Your task to perform on an android device: Open Android settings Image 0: 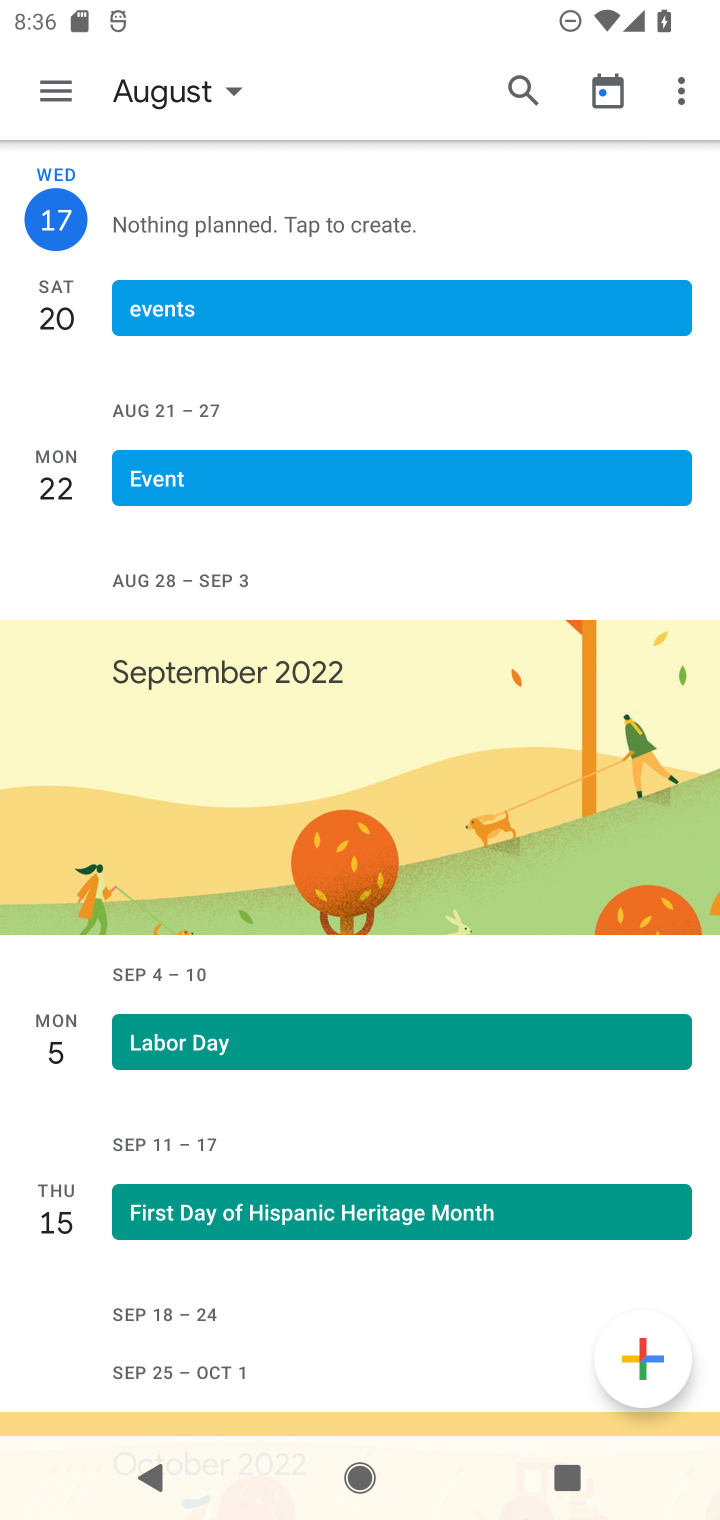
Step 0: press home button
Your task to perform on an android device: Open Android settings Image 1: 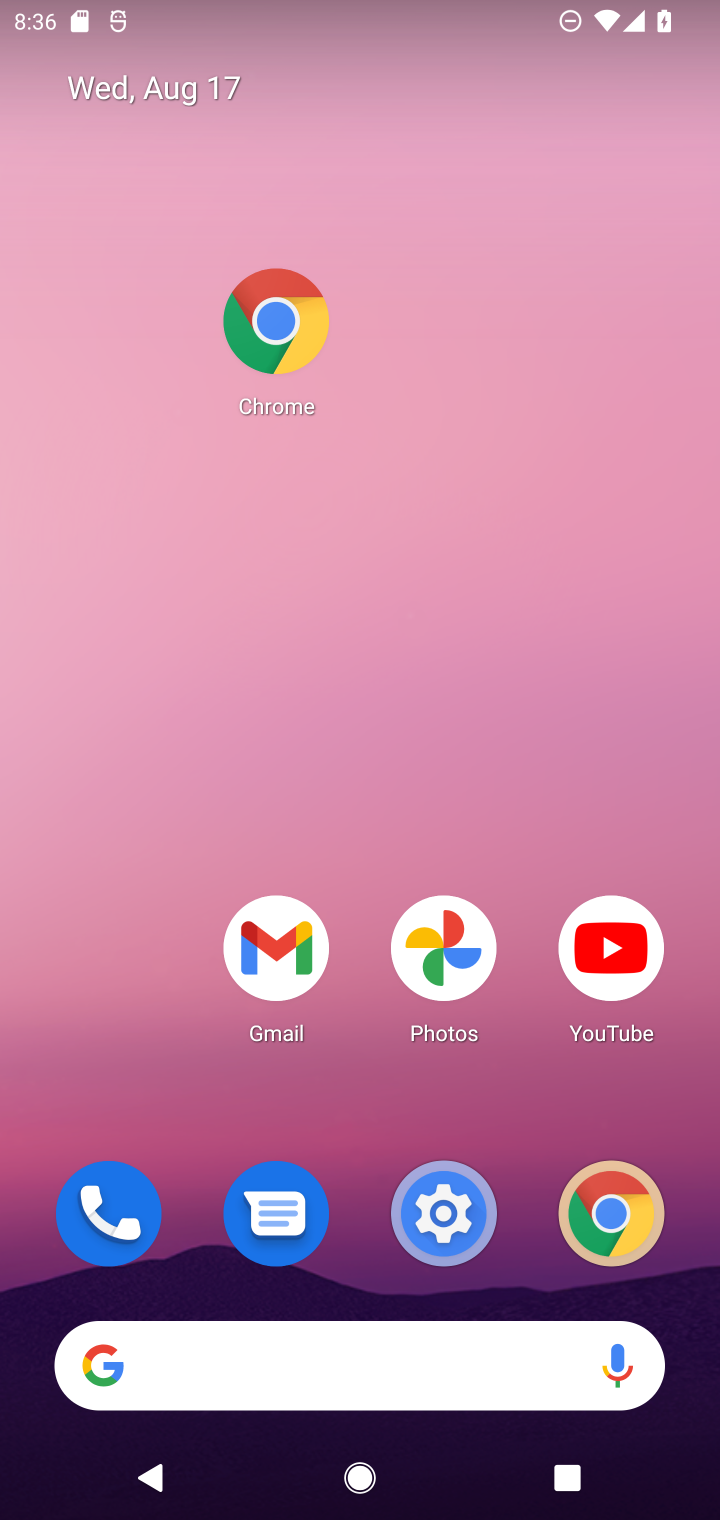
Step 1: click (441, 1256)
Your task to perform on an android device: Open Android settings Image 2: 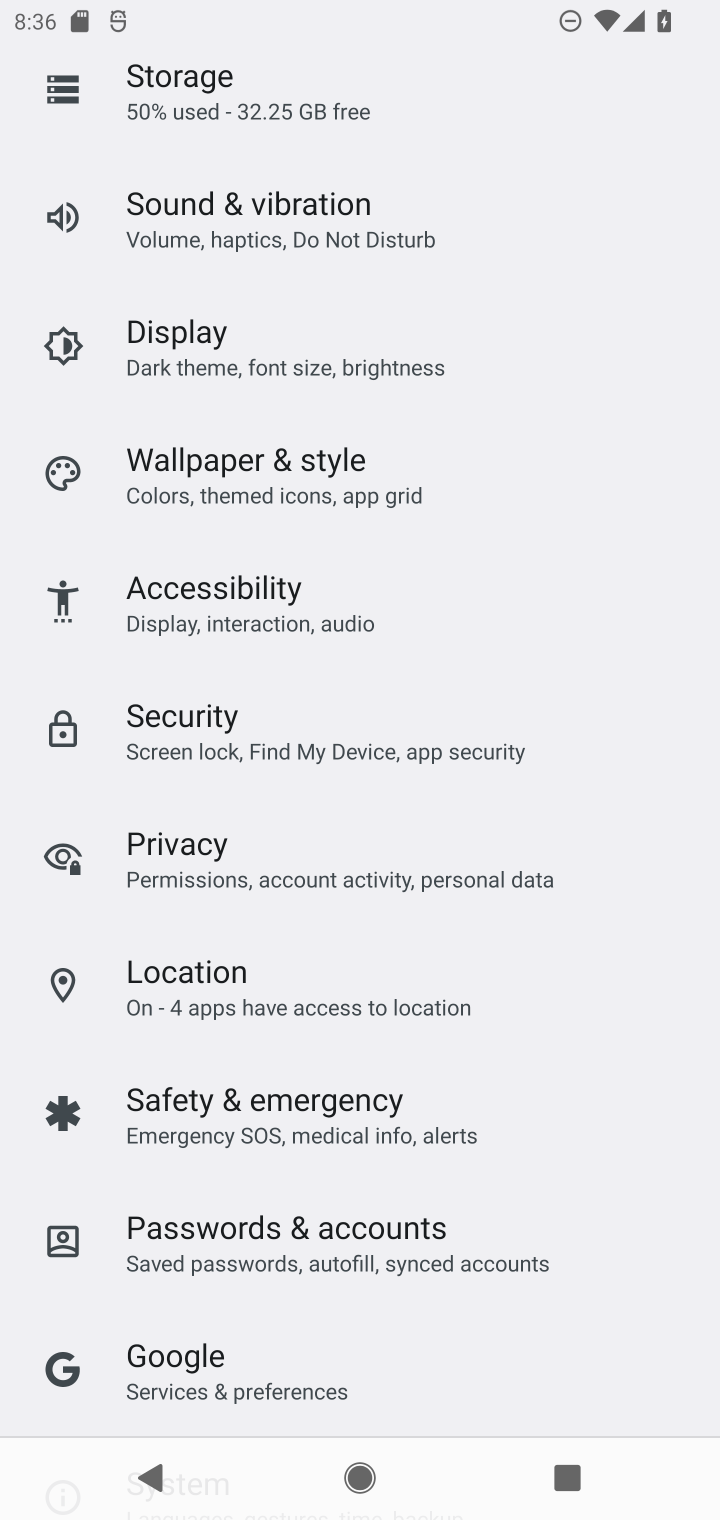
Step 2: task complete